Your task to perform on an android device: delete the emails in spam in the gmail app Image 0: 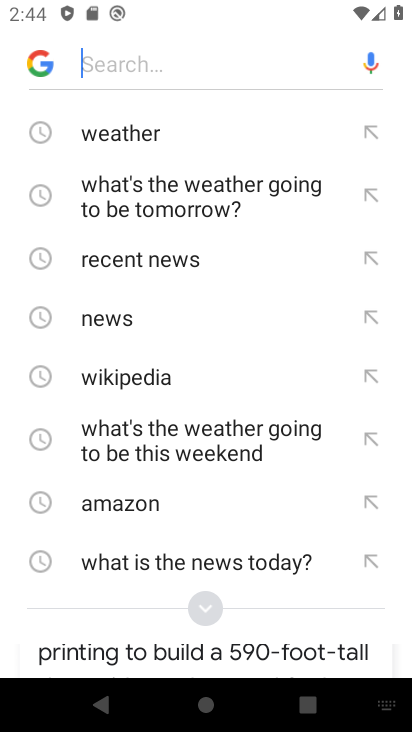
Step 0: press home button
Your task to perform on an android device: delete the emails in spam in the gmail app Image 1: 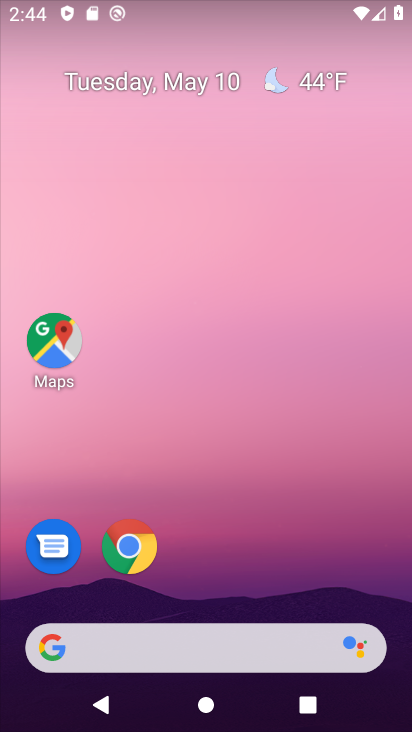
Step 1: drag from (319, 665) to (400, 500)
Your task to perform on an android device: delete the emails in spam in the gmail app Image 2: 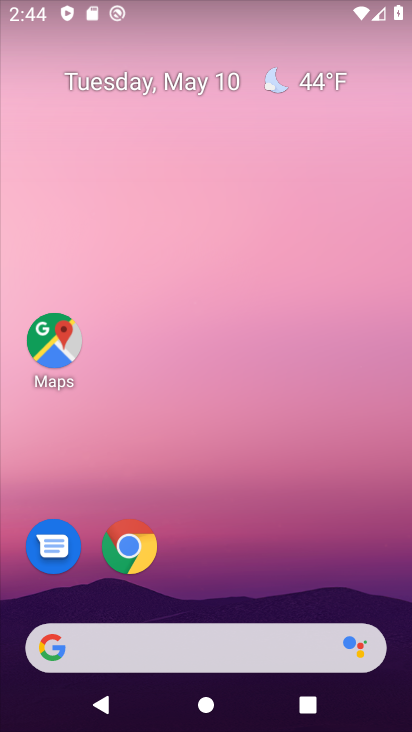
Step 2: drag from (277, 649) to (183, 3)
Your task to perform on an android device: delete the emails in spam in the gmail app Image 3: 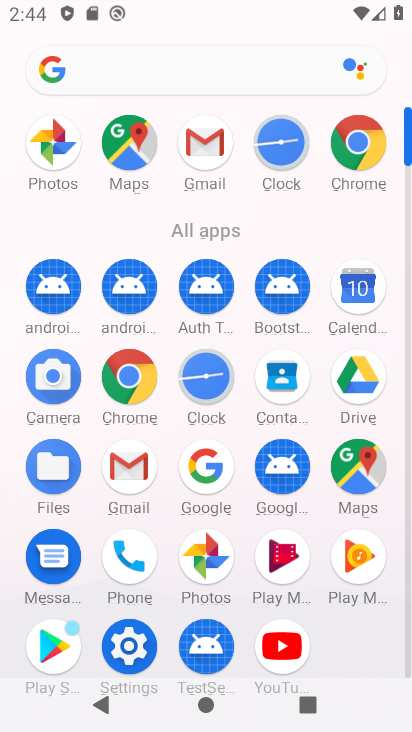
Step 3: click (128, 472)
Your task to perform on an android device: delete the emails in spam in the gmail app Image 4: 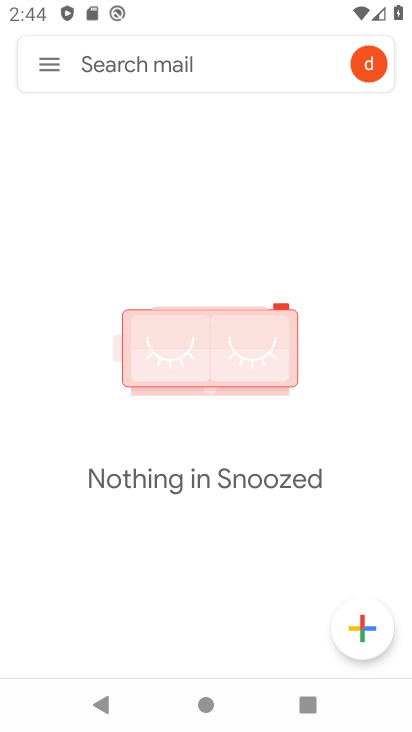
Step 4: click (35, 63)
Your task to perform on an android device: delete the emails in spam in the gmail app Image 5: 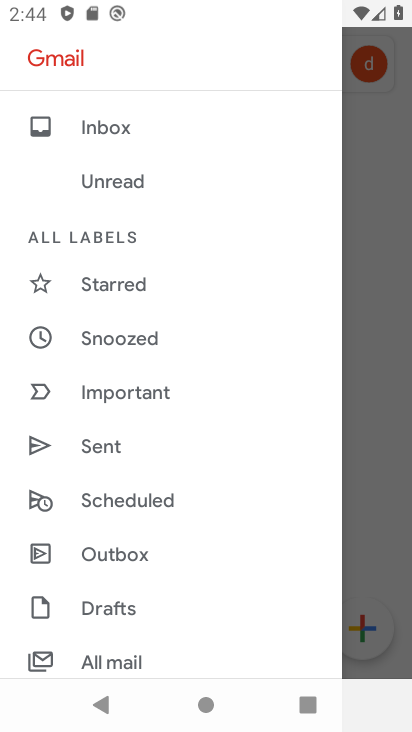
Step 5: drag from (118, 614) to (103, 179)
Your task to perform on an android device: delete the emails in spam in the gmail app Image 6: 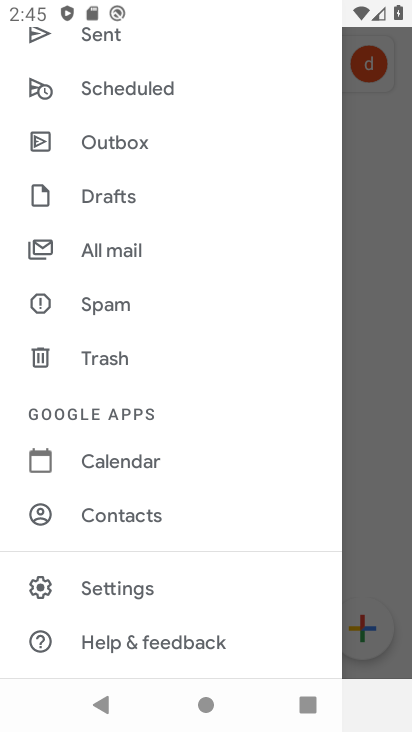
Step 6: click (93, 301)
Your task to perform on an android device: delete the emails in spam in the gmail app Image 7: 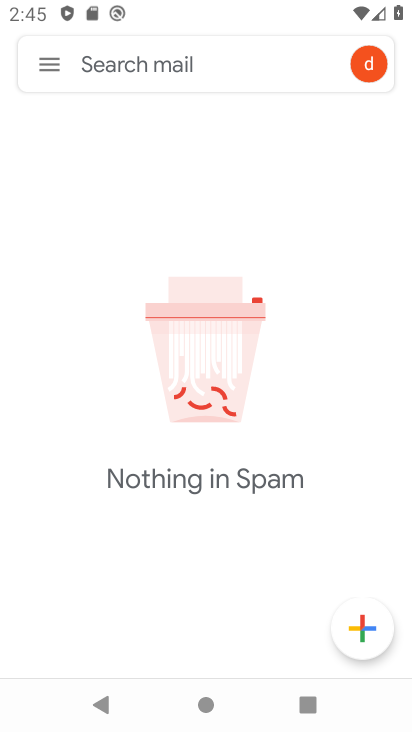
Step 7: task complete